Your task to perform on an android device: open wifi settings Image 0: 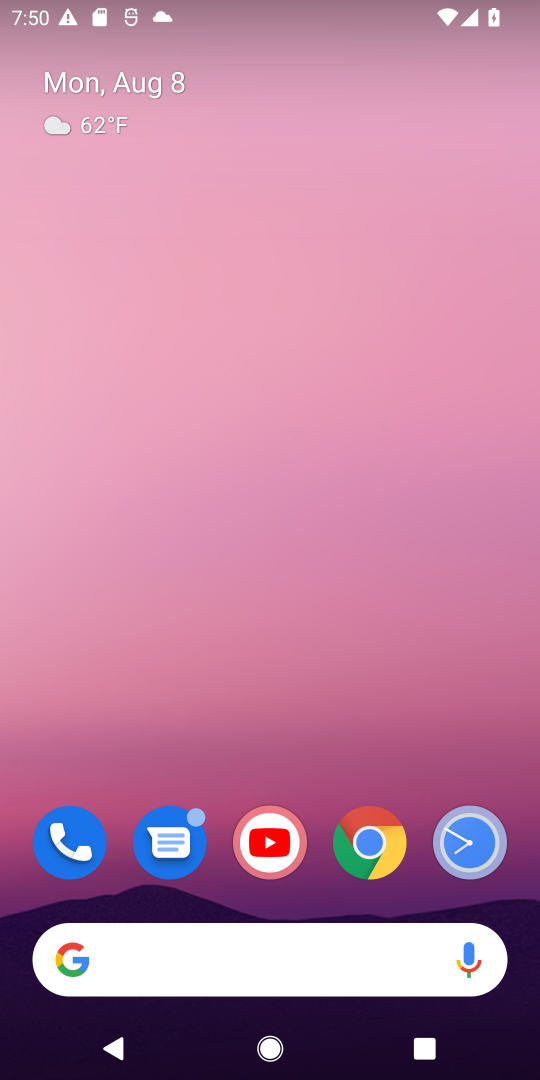
Step 0: drag from (271, 722) to (365, 0)
Your task to perform on an android device: open wifi settings Image 1: 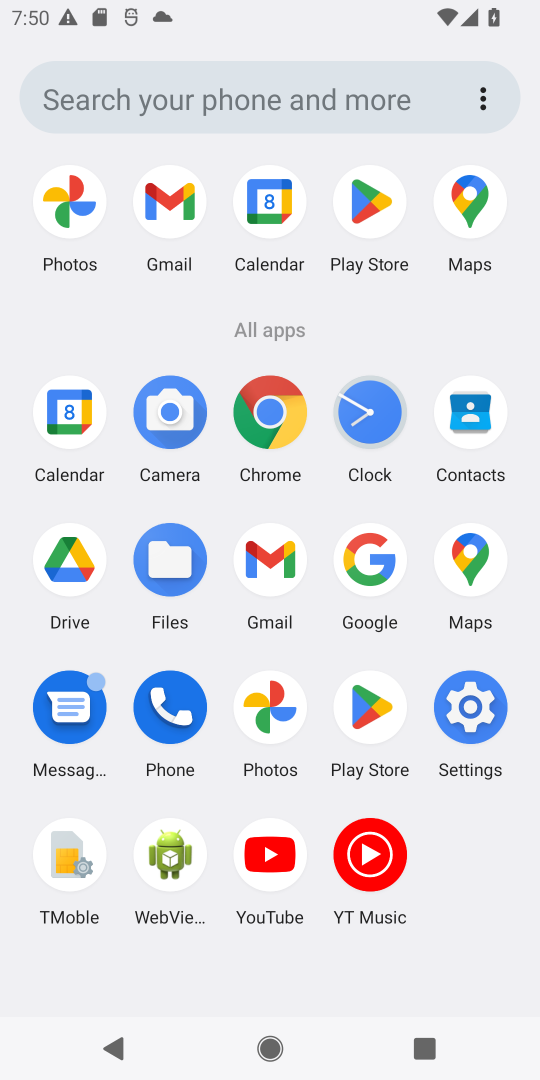
Step 1: click (464, 703)
Your task to perform on an android device: open wifi settings Image 2: 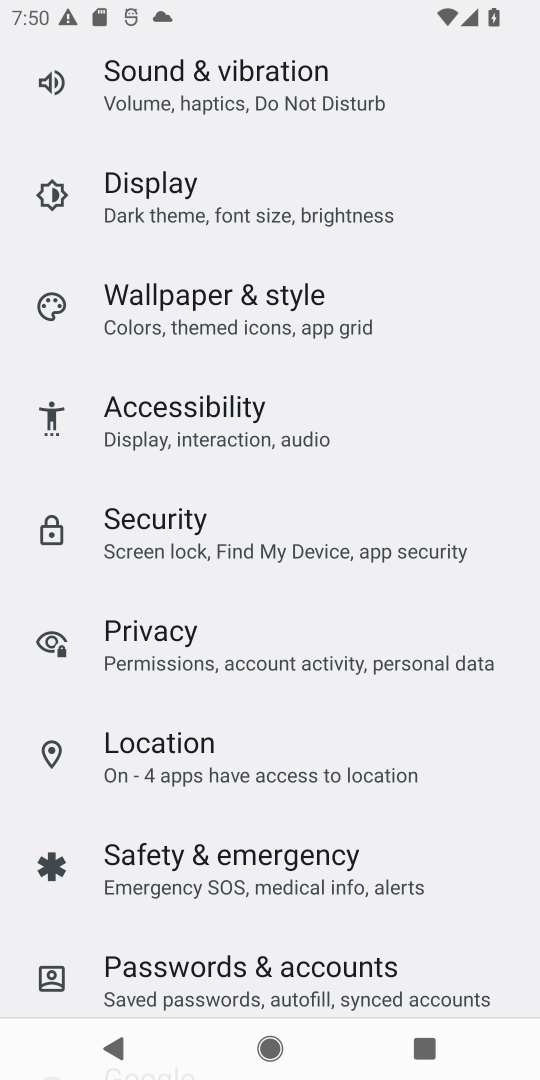
Step 2: drag from (229, 168) to (224, 534)
Your task to perform on an android device: open wifi settings Image 3: 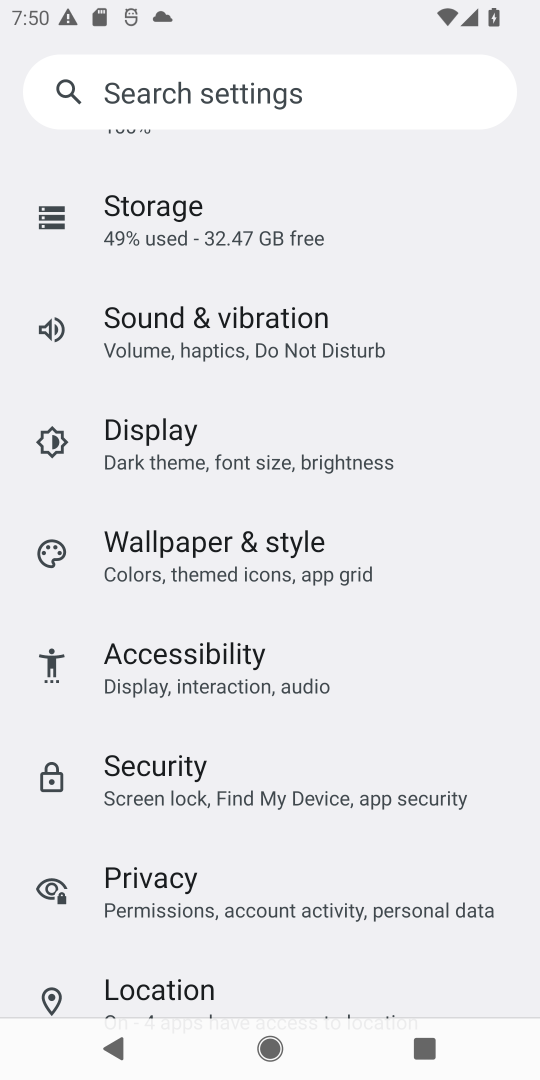
Step 3: drag from (332, 341) to (333, 711)
Your task to perform on an android device: open wifi settings Image 4: 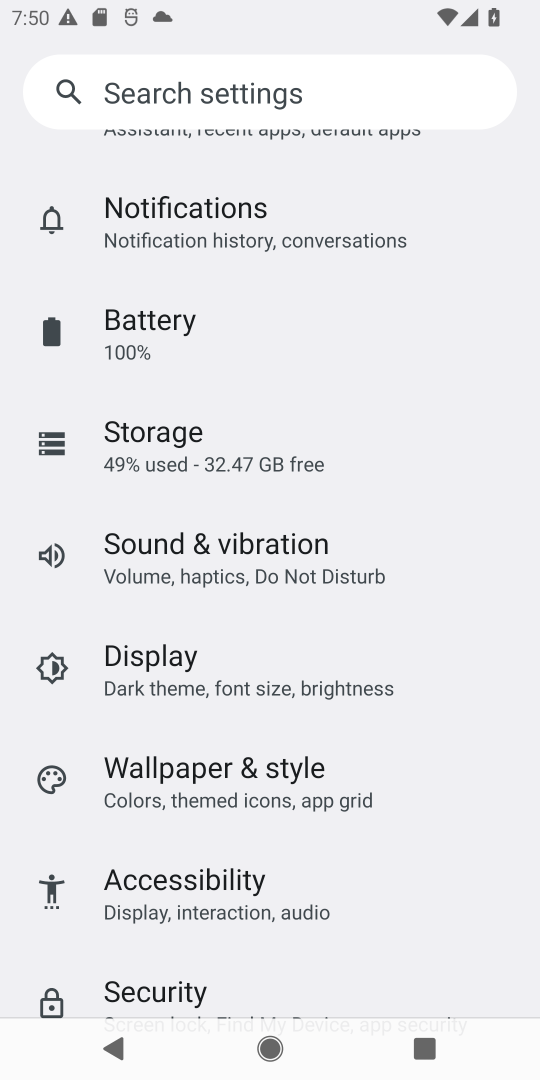
Step 4: drag from (355, 307) to (333, 738)
Your task to perform on an android device: open wifi settings Image 5: 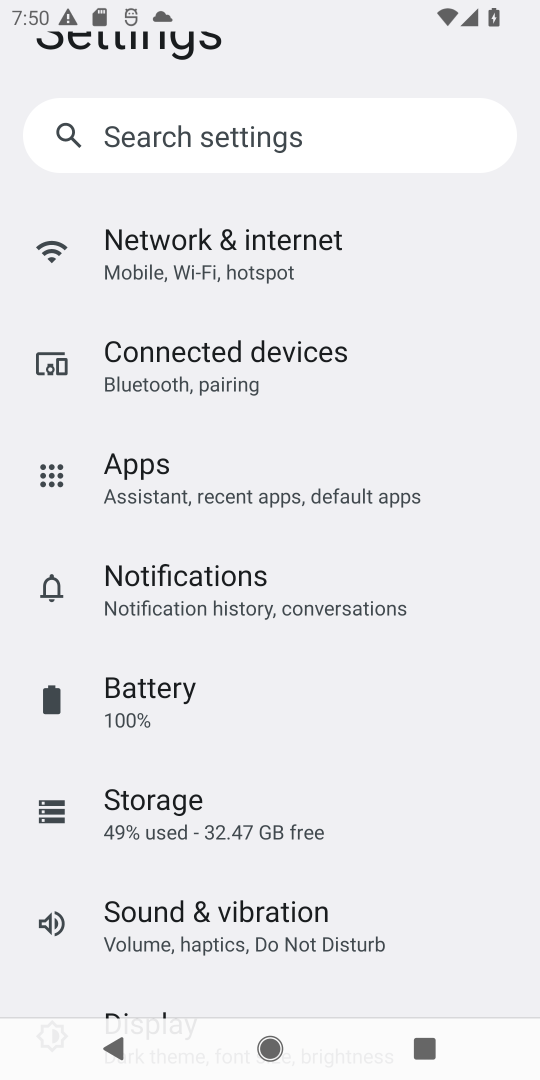
Step 5: click (268, 251)
Your task to perform on an android device: open wifi settings Image 6: 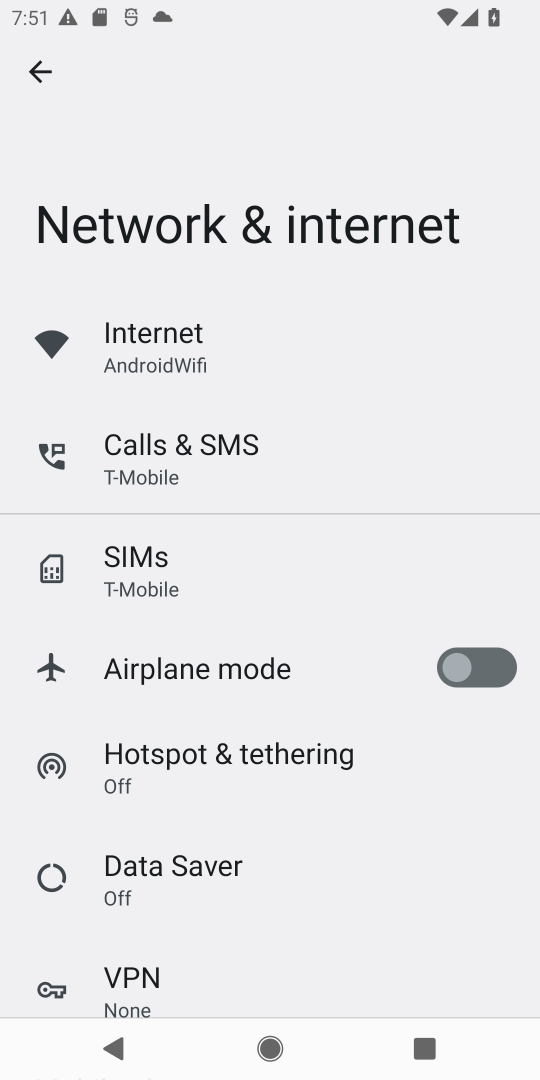
Step 6: click (184, 339)
Your task to perform on an android device: open wifi settings Image 7: 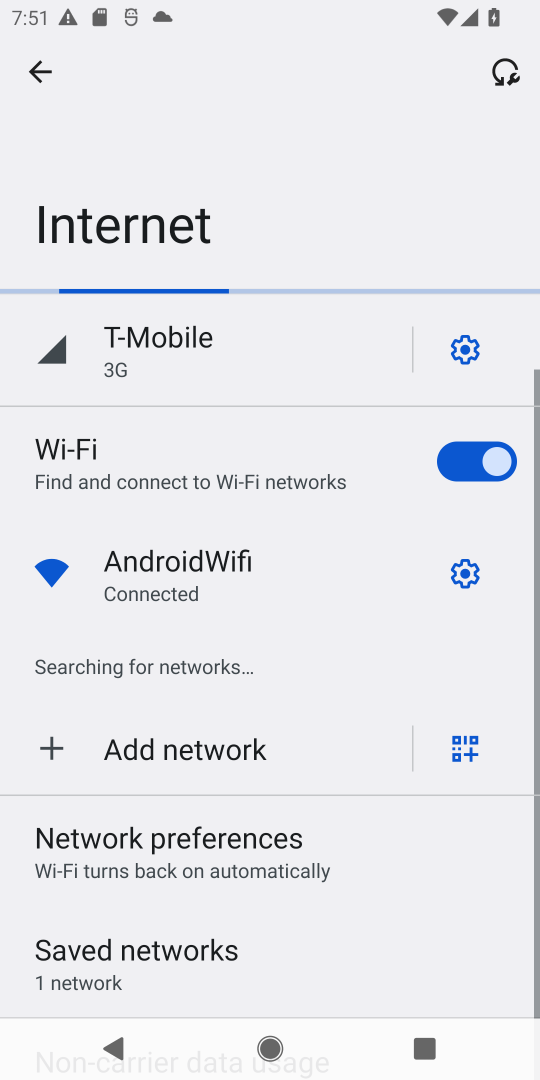
Step 7: task complete